Your task to perform on an android device: Open Yahoo.com Image 0: 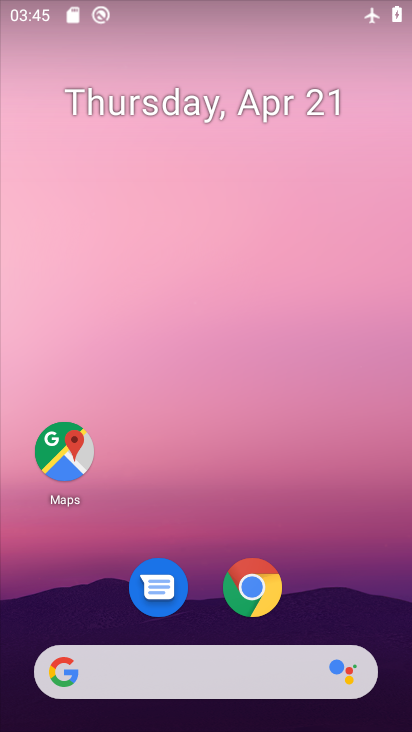
Step 0: drag from (335, 586) to (333, 175)
Your task to perform on an android device: Open Yahoo.com Image 1: 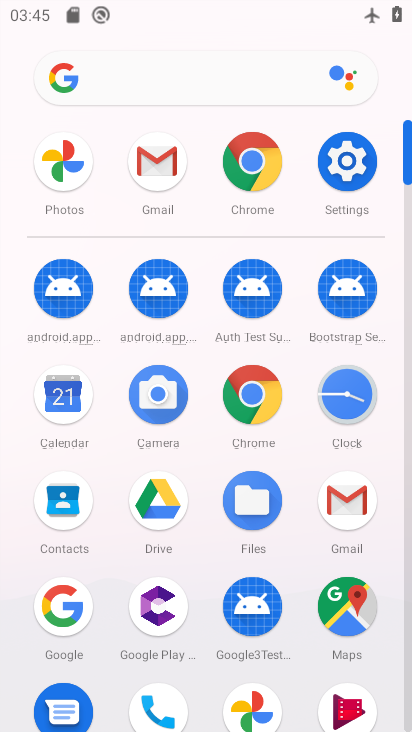
Step 1: click (247, 386)
Your task to perform on an android device: Open Yahoo.com Image 2: 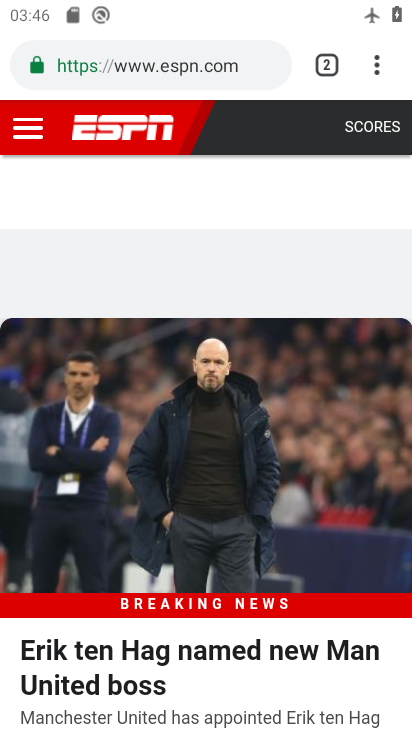
Step 2: click (229, 66)
Your task to perform on an android device: Open Yahoo.com Image 3: 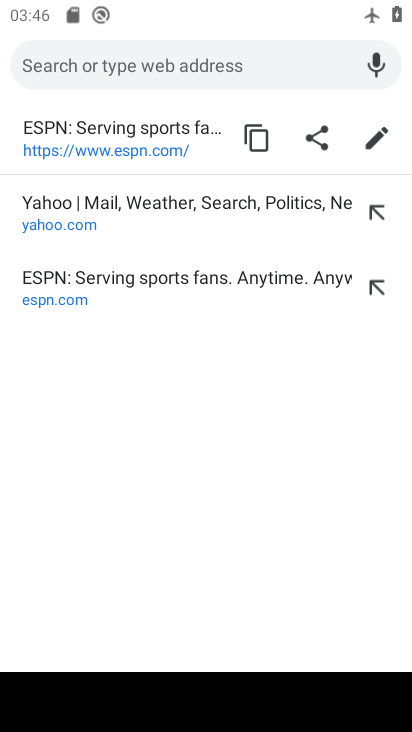
Step 3: type "yahoo.com"
Your task to perform on an android device: Open Yahoo.com Image 4: 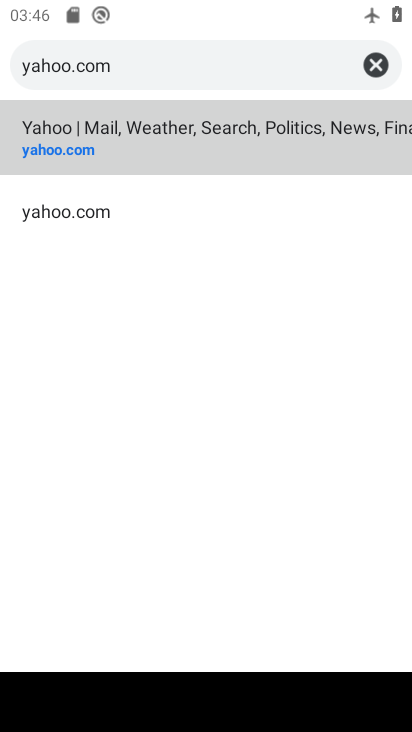
Step 4: click (138, 164)
Your task to perform on an android device: Open Yahoo.com Image 5: 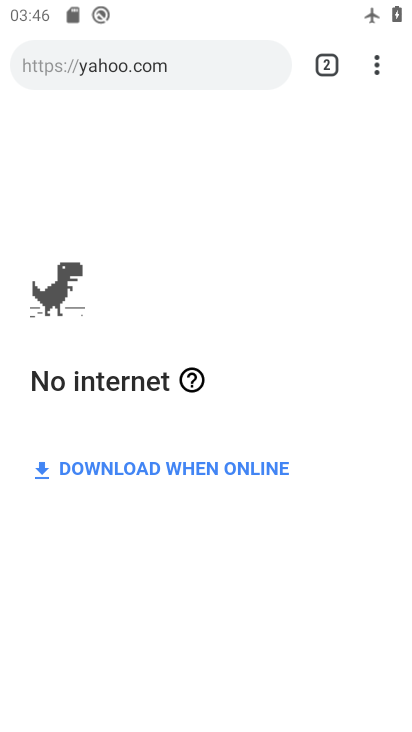
Step 5: task complete